Your task to perform on an android device: change the clock display to analog Image 0: 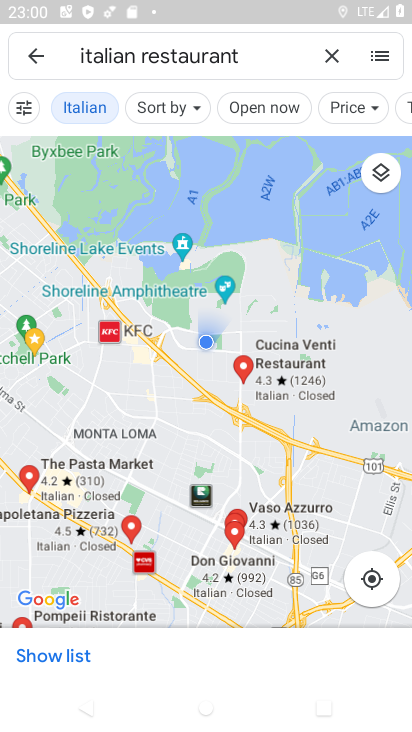
Step 0: press back button
Your task to perform on an android device: change the clock display to analog Image 1: 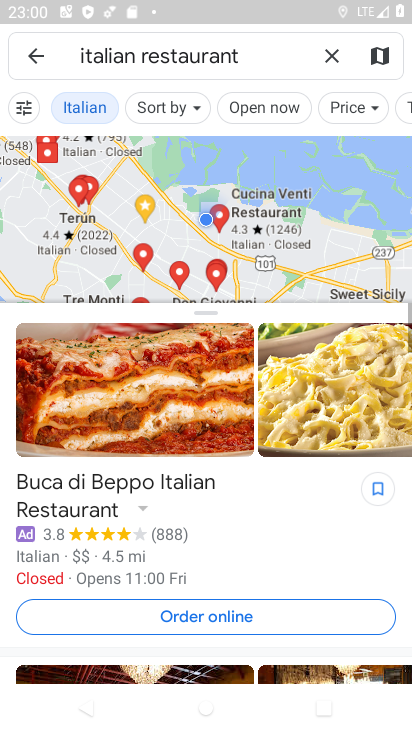
Step 1: press back button
Your task to perform on an android device: change the clock display to analog Image 2: 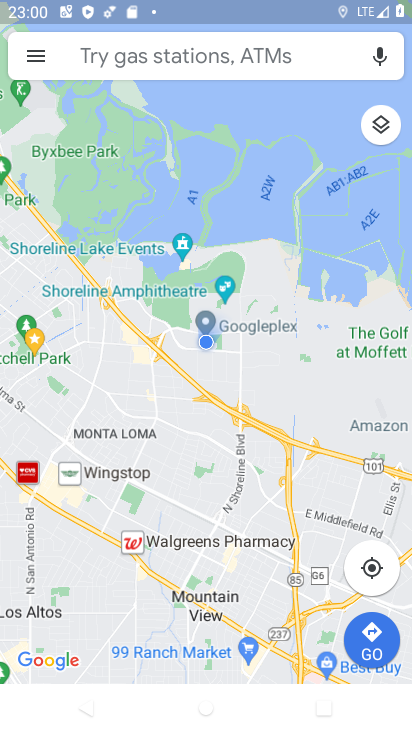
Step 2: press back button
Your task to perform on an android device: change the clock display to analog Image 3: 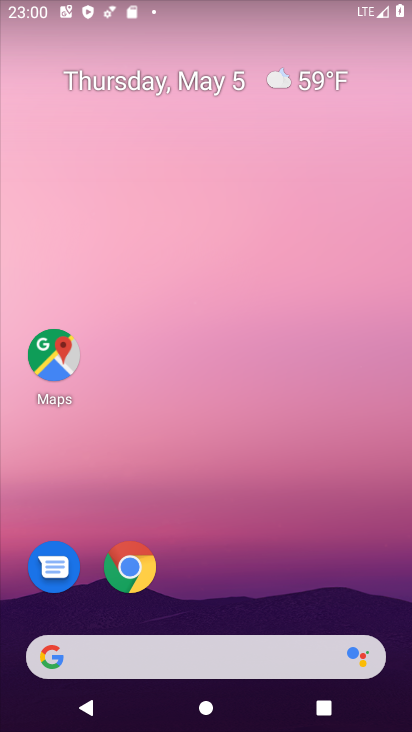
Step 3: drag from (217, 555) to (254, 37)
Your task to perform on an android device: change the clock display to analog Image 4: 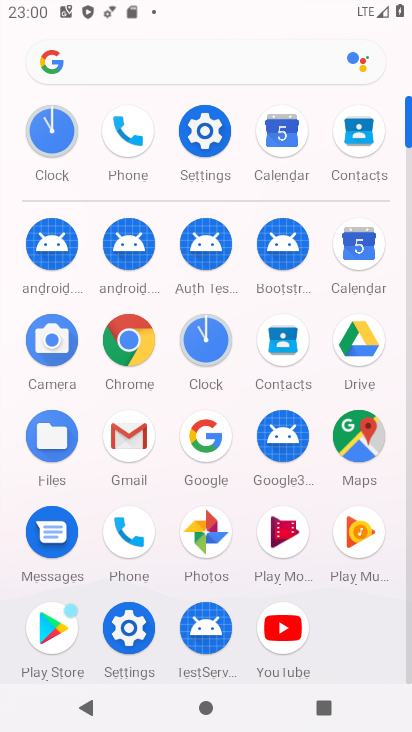
Step 4: click (194, 347)
Your task to perform on an android device: change the clock display to analog Image 5: 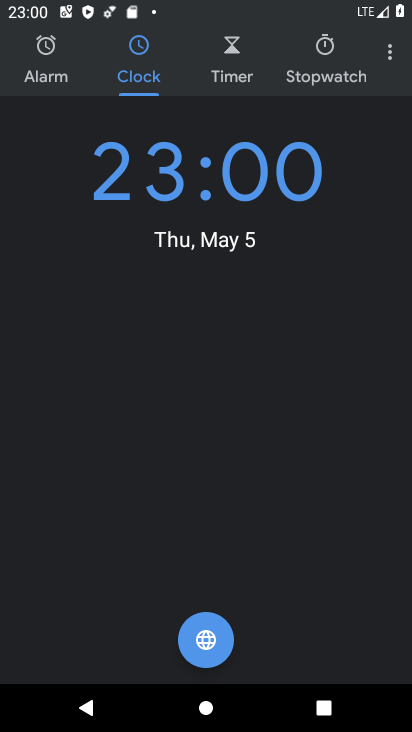
Step 5: click (385, 51)
Your task to perform on an android device: change the clock display to analog Image 6: 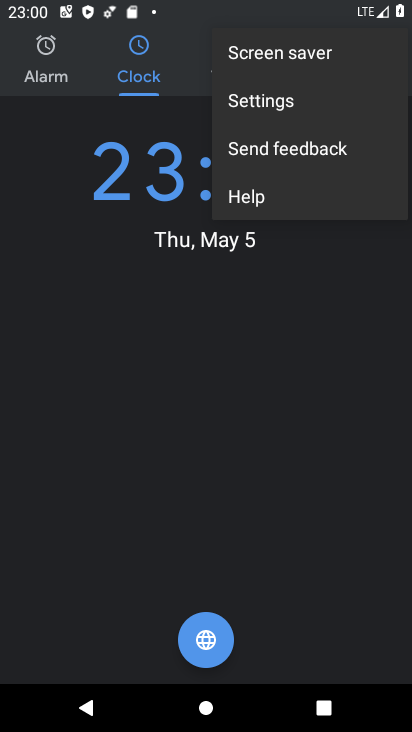
Step 6: click (264, 105)
Your task to perform on an android device: change the clock display to analog Image 7: 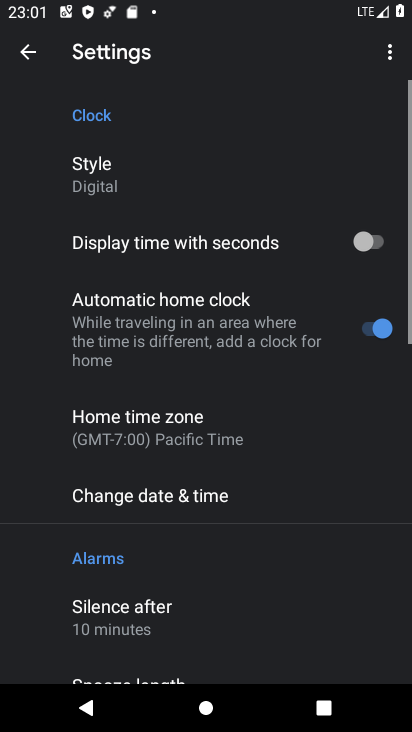
Step 7: click (113, 163)
Your task to perform on an android device: change the clock display to analog Image 8: 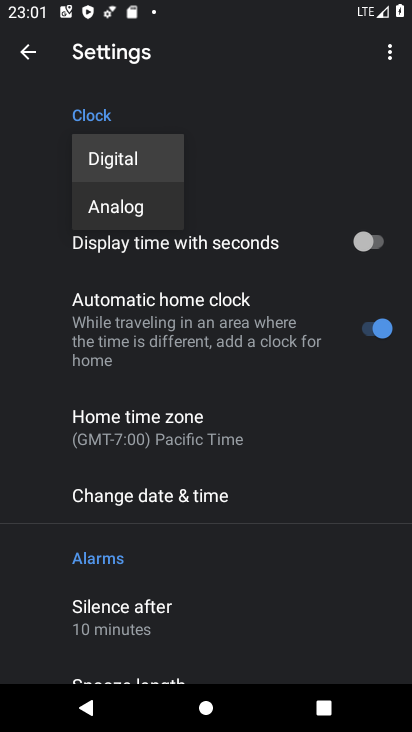
Step 8: click (121, 196)
Your task to perform on an android device: change the clock display to analog Image 9: 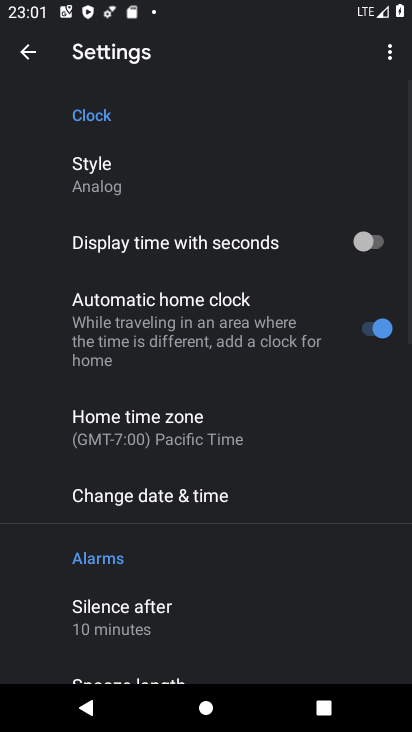
Step 9: task complete